Your task to perform on an android device: turn smart compose on in the gmail app Image 0: 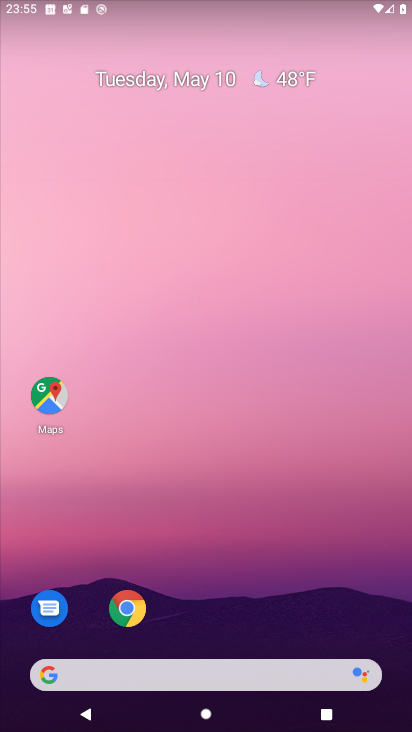
Step 0: drag from (249, 634) to (243, 178)
Your task to perform on an android device: turn smart compose on in the gmail app Image 1: 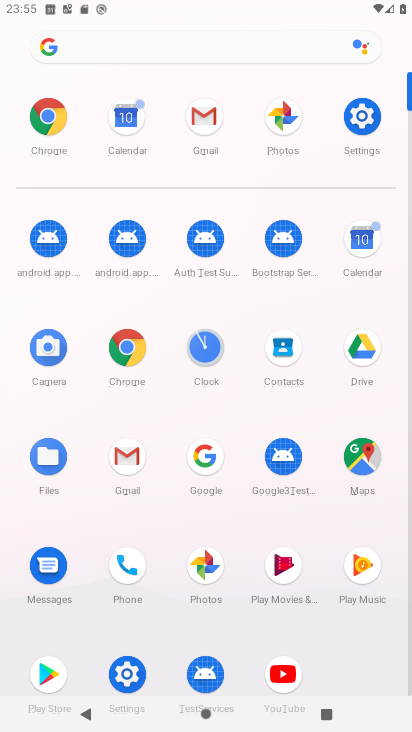
Step 1: click (206, 142)
Your task to perform on an android device: turn smart compose on in the gmail app Image 2: 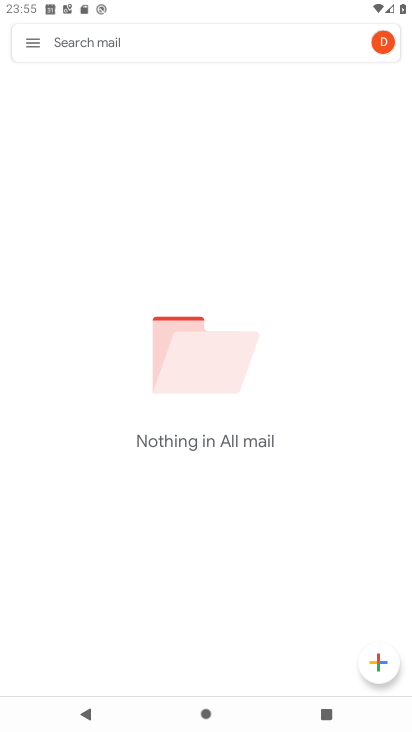
Step 2: click (32, 44)
Your task to perform on an android device: turn smart compose on in the gmail app Image 3: 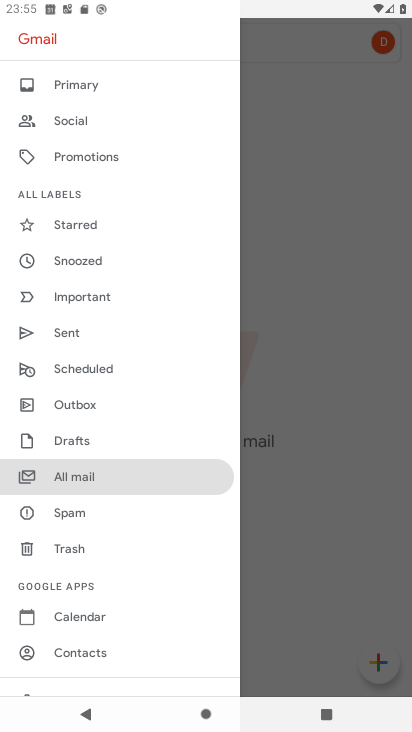
Step 3: drag from (99, 604) to (106, 338)
Your task to perform on an android device: turn smart compose on in the gmail app Image 4: 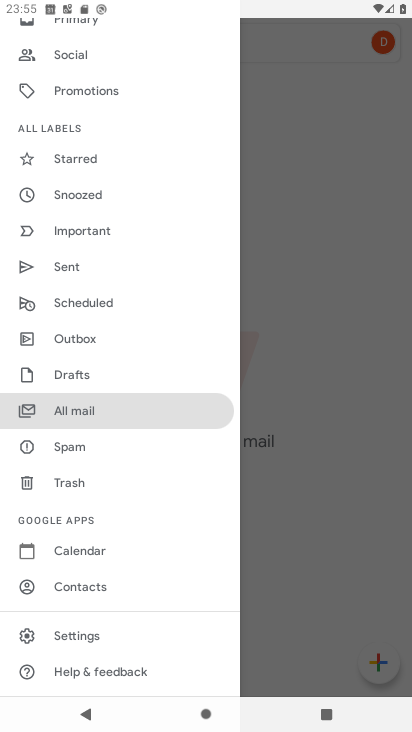
Step 4: click (97, 640)
Your task to perform on an android device: turn smart compose on in the gmail app Image 5: 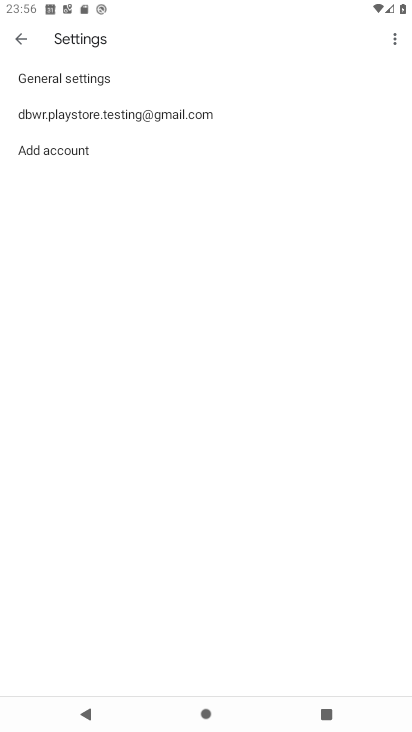
Step 5: click (173, 121)
Your task to perform on an android device: turn smart compose on in the gmail app Image 6: 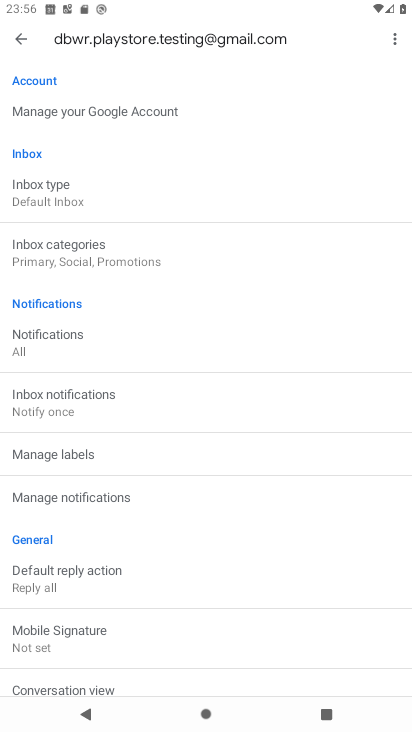
Step 6: task complete